Your task to perform on an android device: Open eBay Image 0: 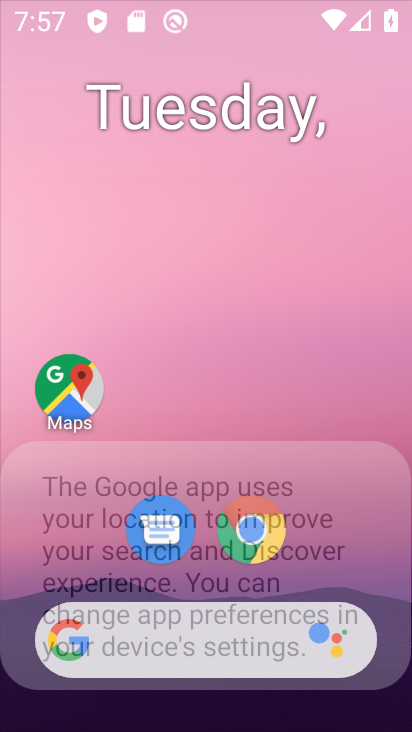
Step 0: click (245, 523)
Your task to perform on an android device: Open eBay Image 1: 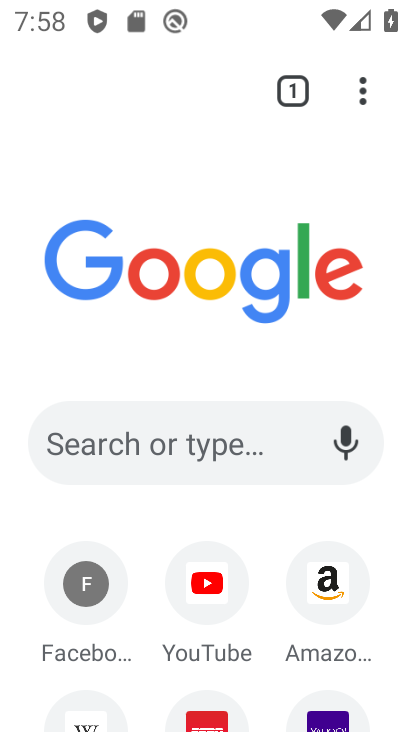
Step 1: click (112, 443)
Your task to perform on an android device: Open eBay Image 2: 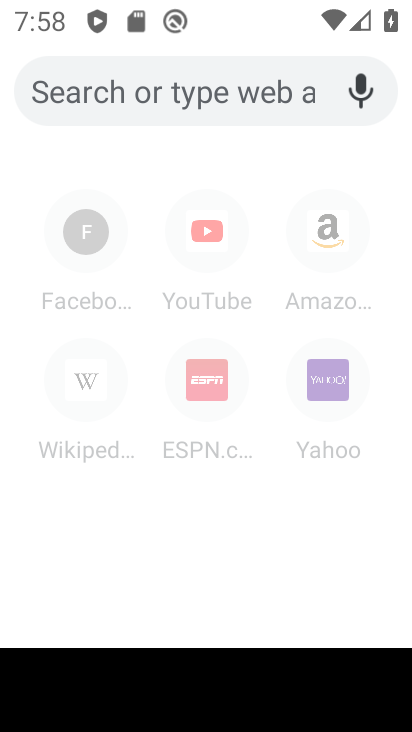
Step 2: type "eBay"
Your task to perform on an android device: Open eBay Image 3: 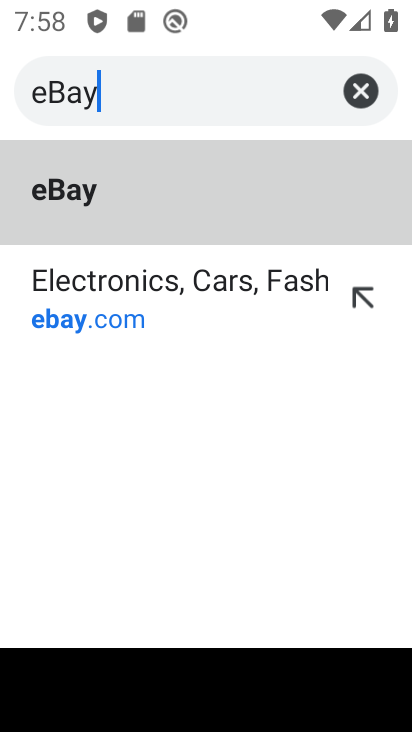
Step 3: click (289, 190)
Your task to perform on an android device: Open eBay Image 4: 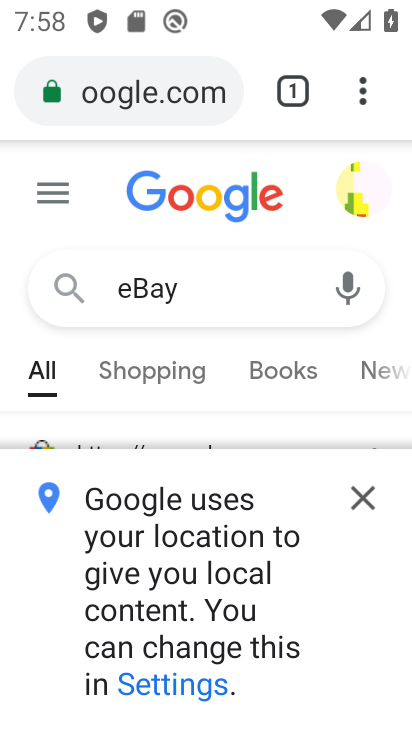
Step 4: task complete